Your task to perform on an android device: Empty the shopping cart on costco. Search for razer nari on costco, select the first entry, add it to the cart, then select checkout. Image 0: 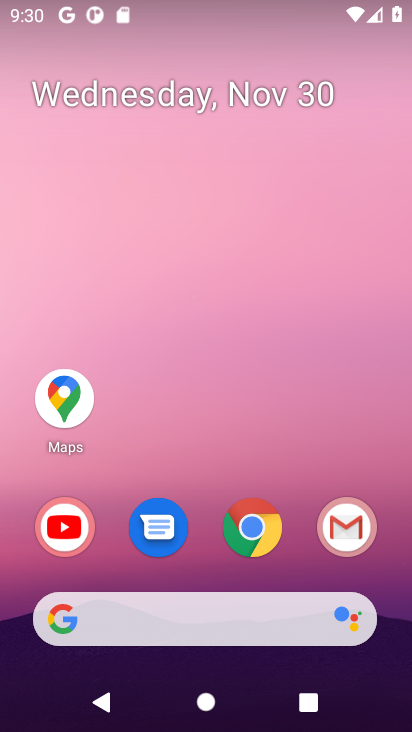
Step 0: click (255, 516)
Your task to perform on an android device: Empty the shopping cart on costco. Search for razer nari on costco, select the first entry, add it to the cart, then select checkout. Image 1: 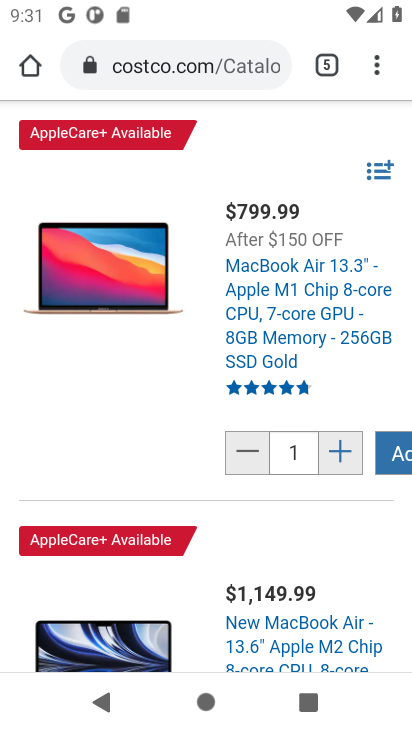
Step 1: drag from (279, 142) to (279, 690)
Your task to perform on an android device: Empty the shopping cart on costco. Search for razer nari on costco, select the first entry, add it to the cart, then select checkout. Image 2: 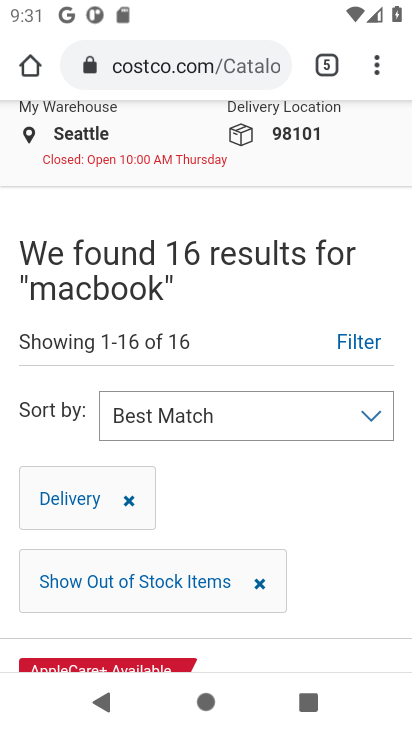
Step 2: drag from (329, 191) to (407, 632)
Your task to perform on an android device: Empty the shopping cart on costco. Search for razer nari on costco, select the first entry, add it to the cart, then select checkout. Image 3: 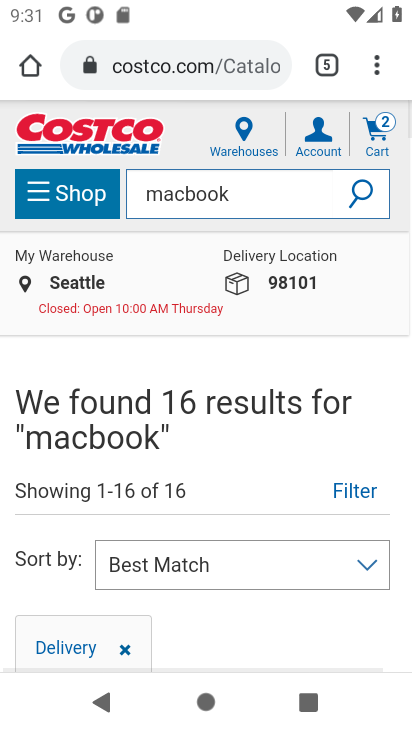
Step 3: click (377, 127)
Your task to perform on an android device: Empty the shopping cart on costco. Search for razer nari on costco, select the first entry, add it to the cart, then select checkout. Image 4: 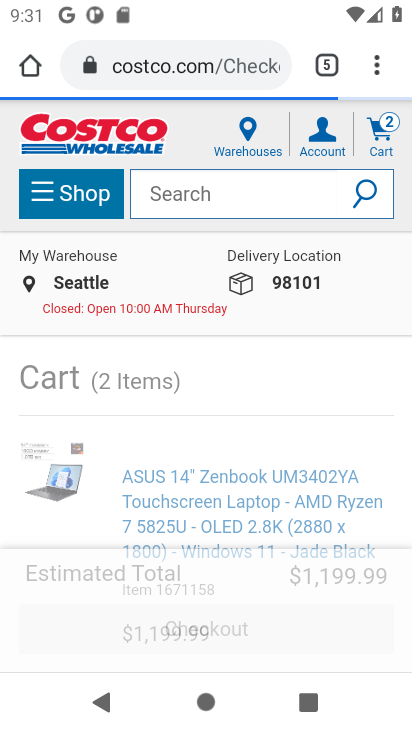
Step 4: drag from (265, 424) to (289, 237)
Your task to perform on an android device: Empty the shopping cart on costco. Search for razer nari on costco, select the first entry, add it to the cart, then select checkout. Image 5: 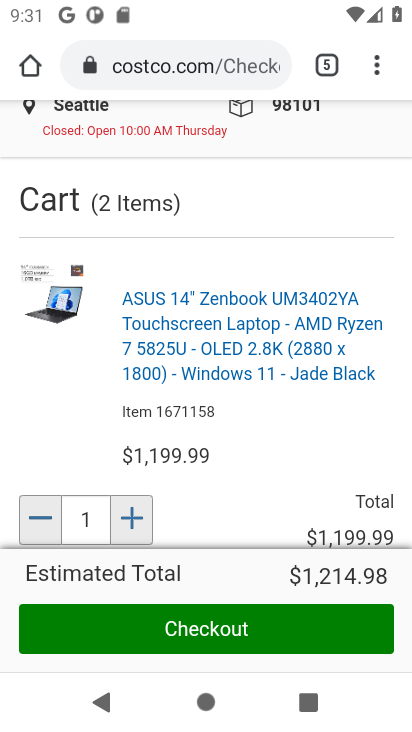
Step 5: drag from (308, 446) to (312, 154)
Your task to perform on an android device: Empty the shopping cart on costco. Search for razer nari on costco, select the first entry, add it to the cart, then select checkout. Image 6: 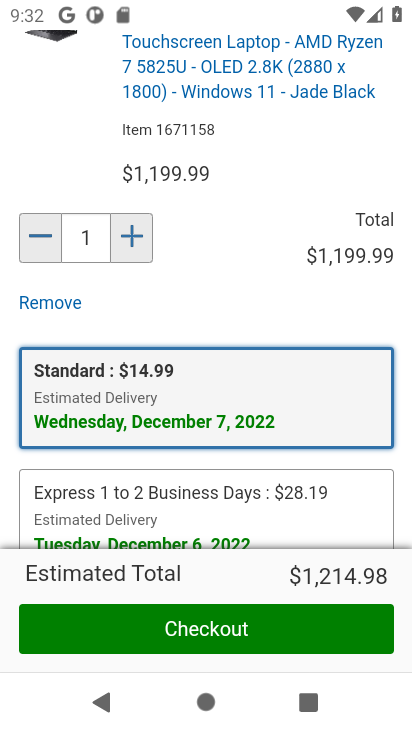
Step 6: click (39, 237)
Your task to perform on an android device: Empty the shopping cart on costco. Search for razer nari on costco, select the first entry, add it to the cart, then select checkout. Image 7: 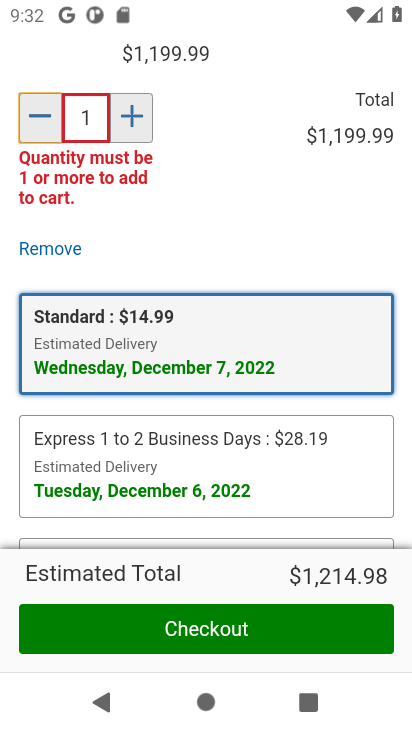
Step 7: click (62, 248)
Your task to perform on an android device: Empty the shopping cart on costco. Search for razer nari on costco, select the first entry, add it to the cart, then select checkout. Image 8: 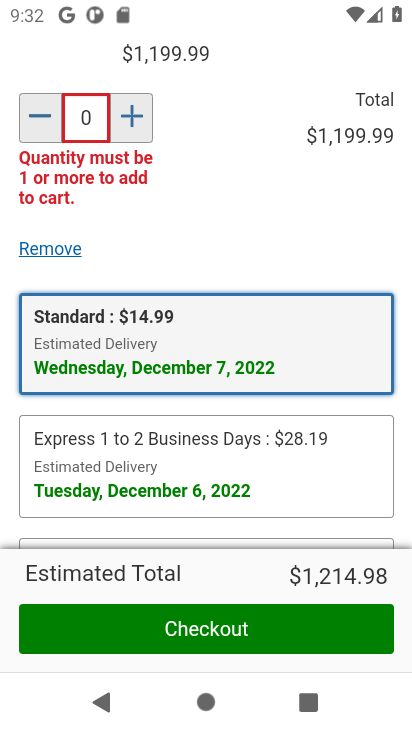
Step 8: task complete